Your task to perform on an android device: Set the phone to "Do not disturb". Image 0: 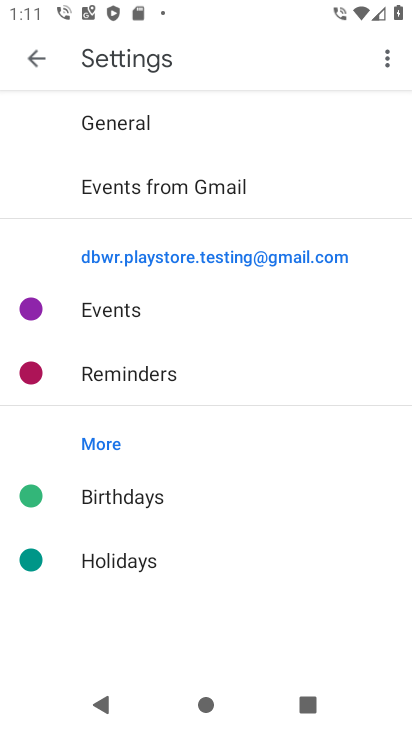
Step 0: press home button
Your task to perform on an android device: Set the phone to "Do not disturb". Image 1: 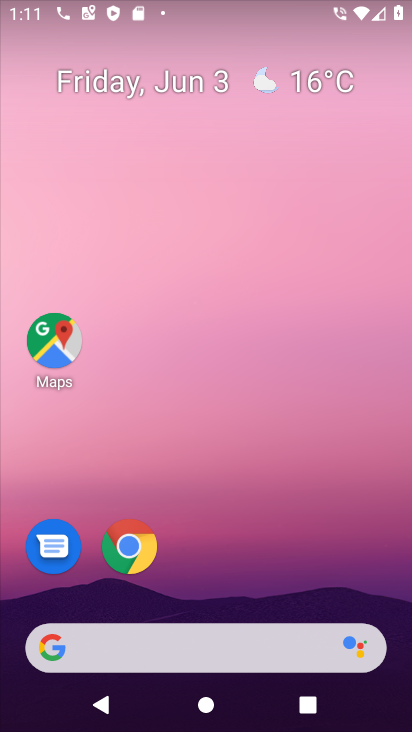
Step 1: drag from (224, 534) to (215, 90)
Your task to perform on an android device: Set the phone to "Do not disturb". Image 2: 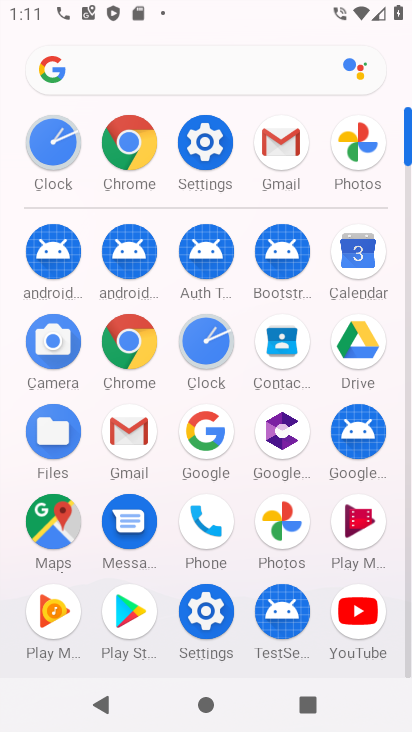
Step 2: click (200, 146)
Your task to perform on an android device: Set the phone to "Do not disturb". Image 3: 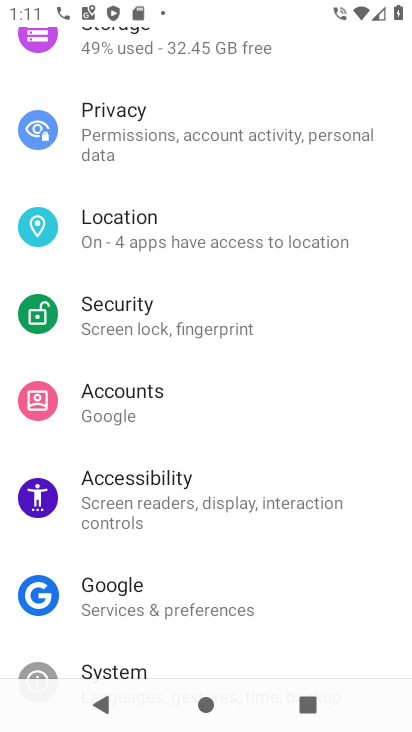
Step 3: drag from (250, 607) to (236, 188)
Your task to perform on an android device: Set the phone to "Do not disturb". Image 4: 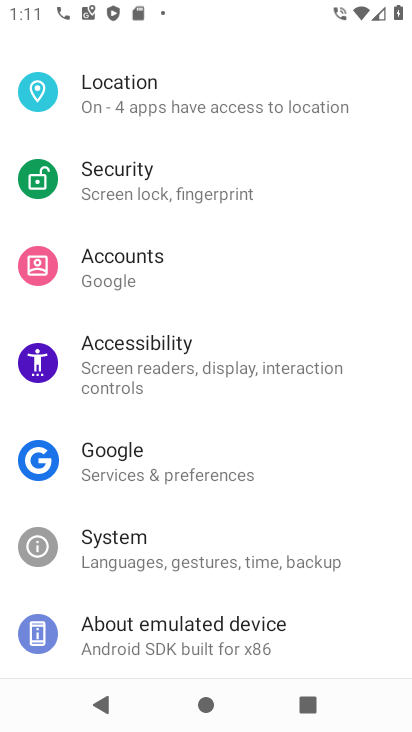
Step 4: drag from (194, 128) to (114, 702)
Your task to perform on an android device: Set the phone to "Do not disturb". Image 5: 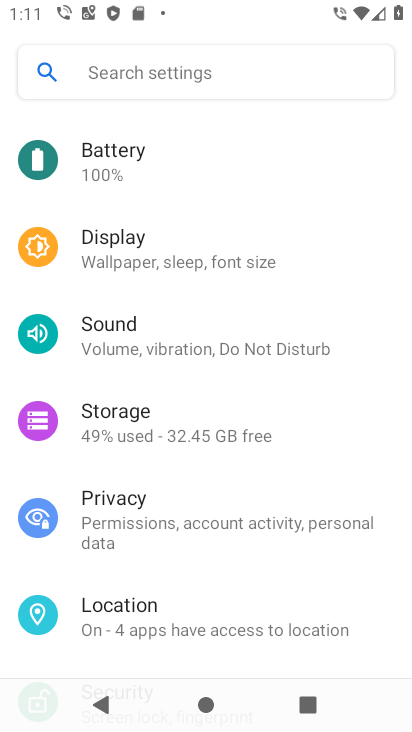
Step 5: click (120, 323)
Your task to perform on an android device: Set the phone to "Do not disturb". Image 6: 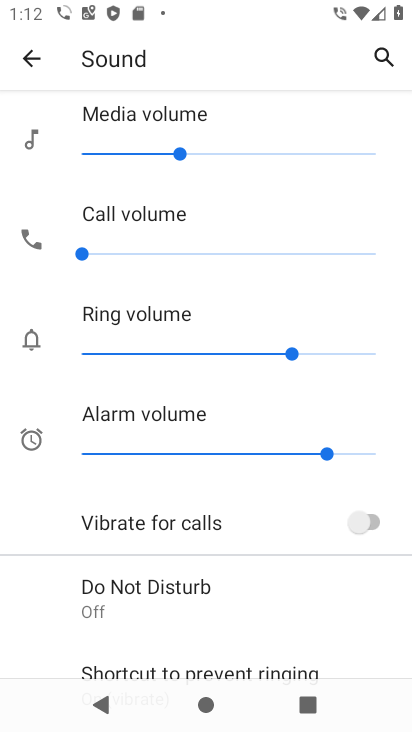
Step 6: click (123, 594)
Your task to perform on an android device: Set the phone to "Do not disturb". Image 7: 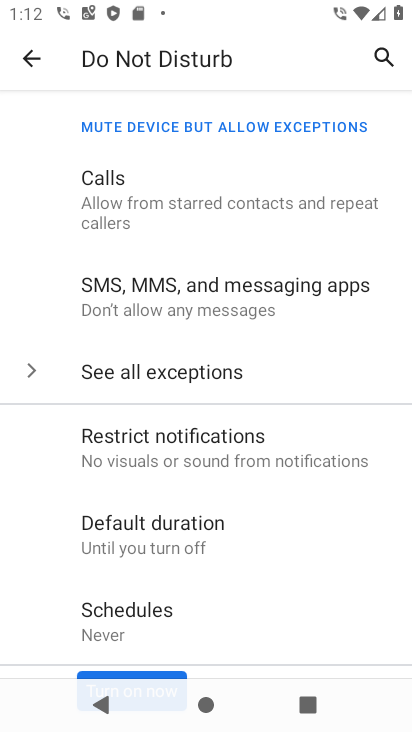
Step 7: drag from (220, 511) to (199, 14)
Your task to perform on an android device: Set the phone to "Do not disturb". Image 8: 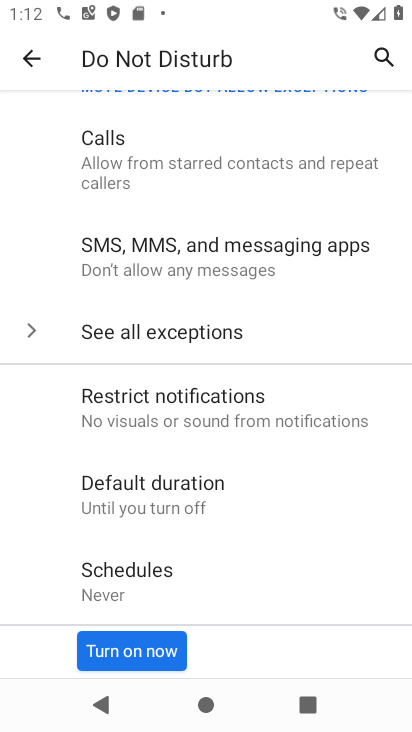
Step 8: click (132, 648)
Your task to perform on an android device: Set the phone to "Do not disturb". Image 9: 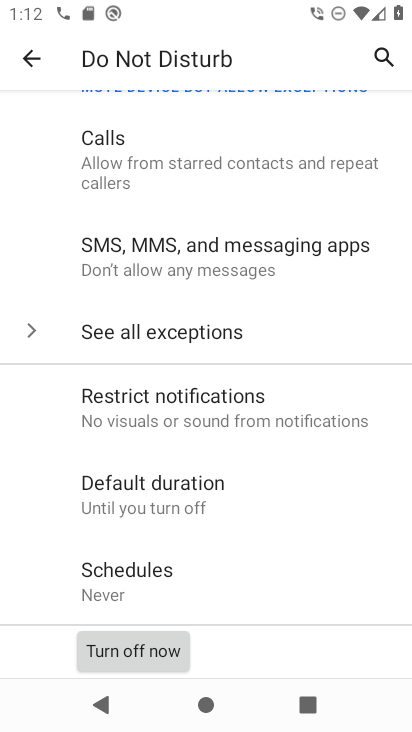
Step 9: task complete